Your task to perform on an android device: turn on translation in the chrome app Image 0: 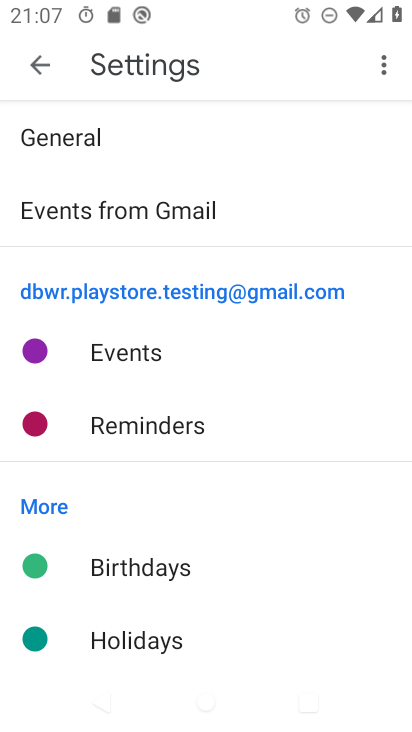
Step 0: press home button
Your task to perform on an android device: turn on translation in the chrome app Image 1: 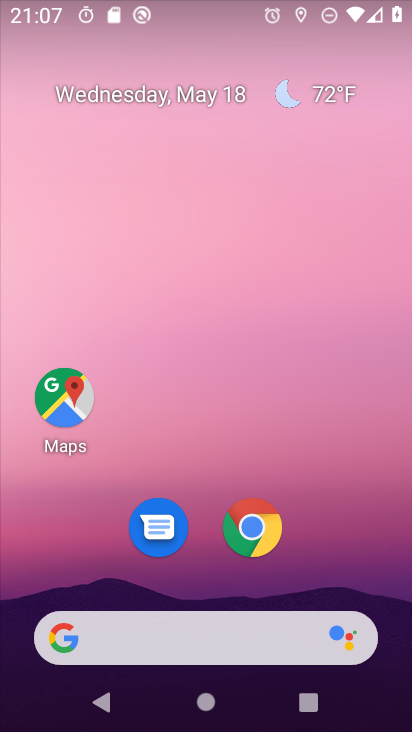
Step 1: drag from (391, 687) to (384, 236)
Your task to perform on an android device: turn on translation in the chrome app Image 2: 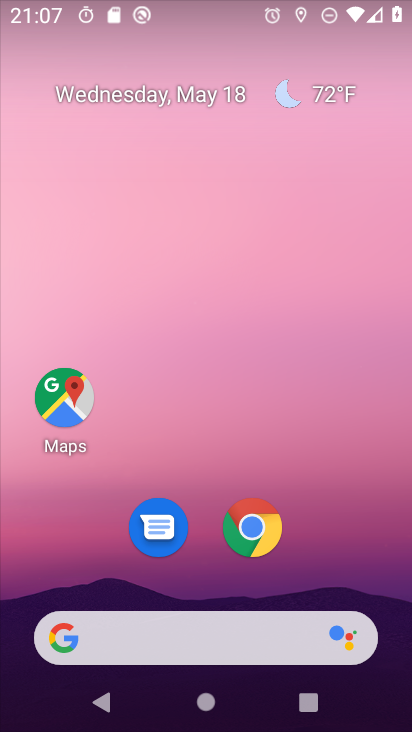
Step 2: drag from (390, 693) to (409, 350)
Your task to perform on an android device: turn on translation in the chrome app Image 3: 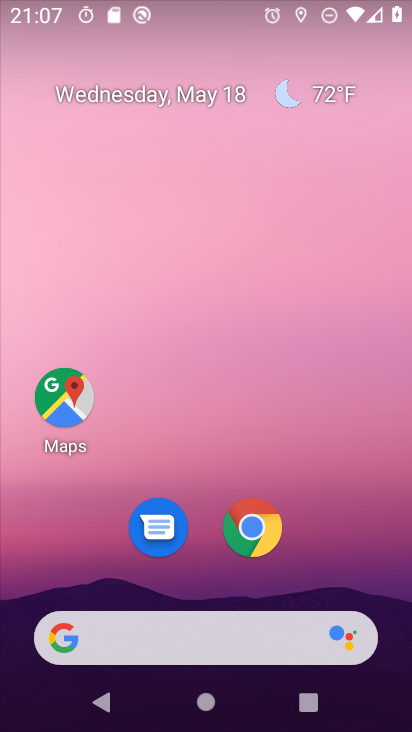
Step 3: drag from (389, 689) to (394, 313)
Your task to perform on an android device: turn on translation in the chrome app Image 4: 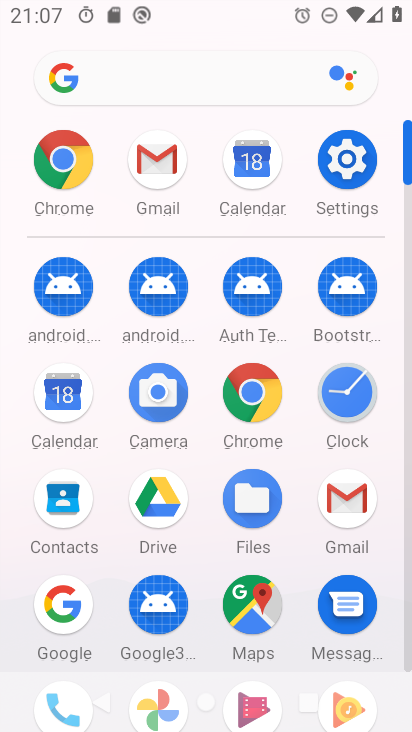
Step 4: click (233, 400)
Your task to perform on an android device: turn on translation in the chrome app Image 5: 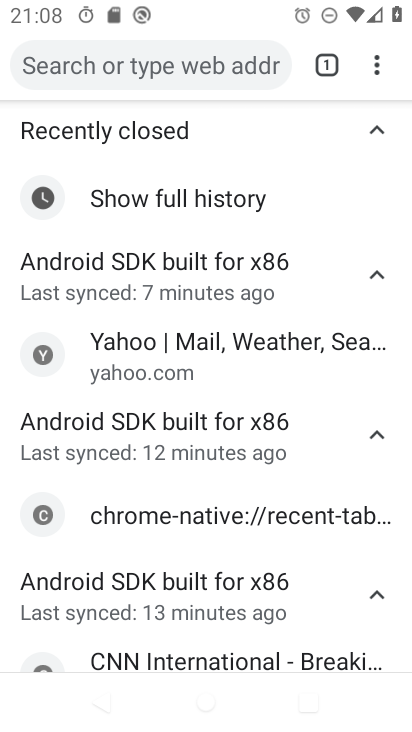
Step 5: click (378, 62)
Your task to perform on an android device: turn on translation in the chrome app Image 6: 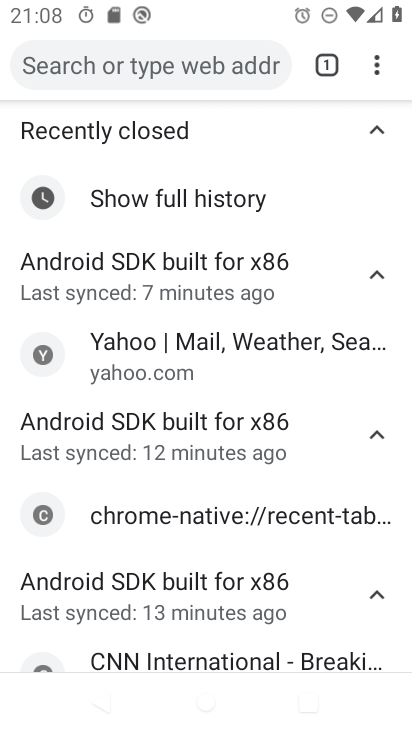
Step 6: click (372, 64)
Your task to perform on an android device: turn on translation in the chrome app Image 7: 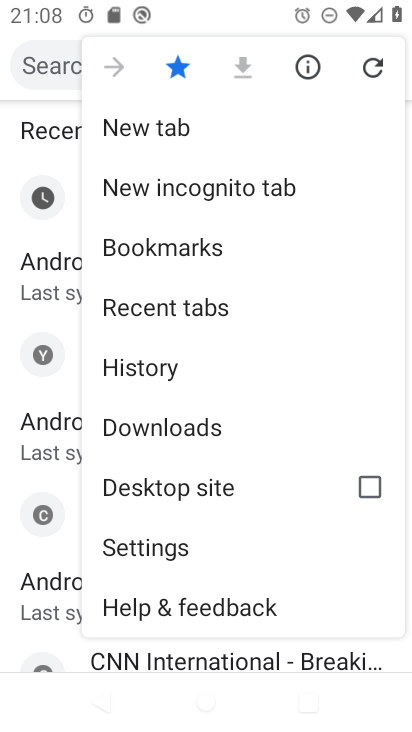
Step 7: drag from (269, 572) to (321, 251)
Your task to perform on an android device: turn on translation in the chrome app Image 8: 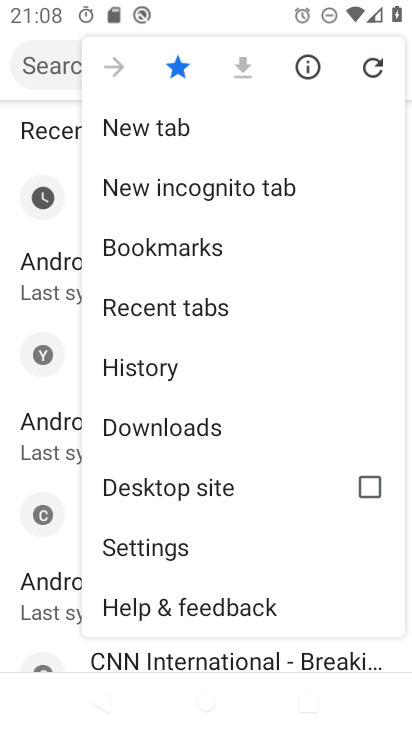
Step 8: drag from (291, 612) to (323, 186)
Your task to perform on an android device: turn on translation in the chrome app Image 9: 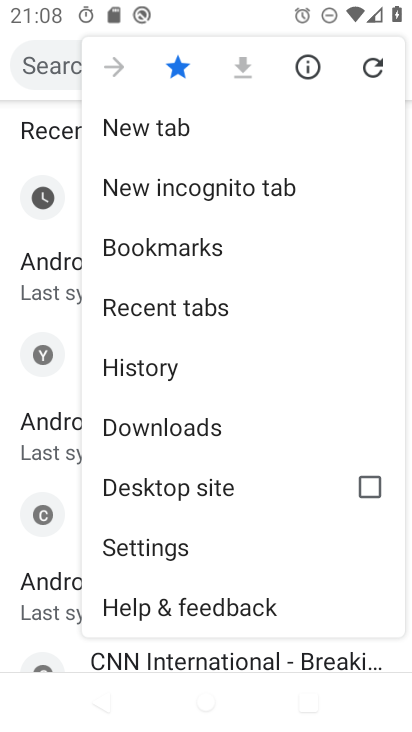
Step 9: drag from (318, 403) to (331, 97)
Your task to perform on an android device: turn on translation in the chrome app Image 10: 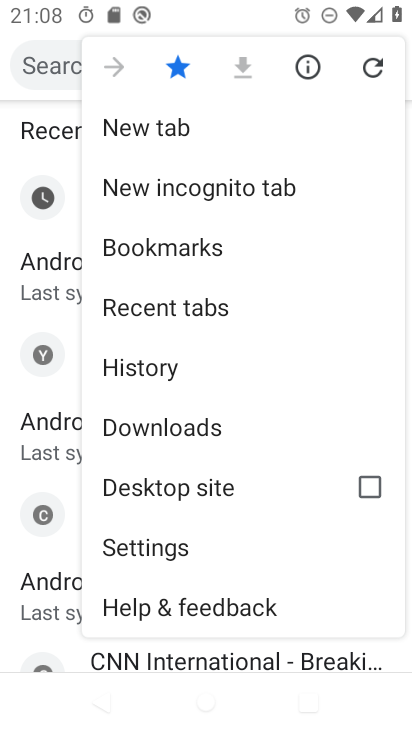
Step 10: click (146, 552)
Your task to perform on an android device: turn on translation in the chrome app Image 11: 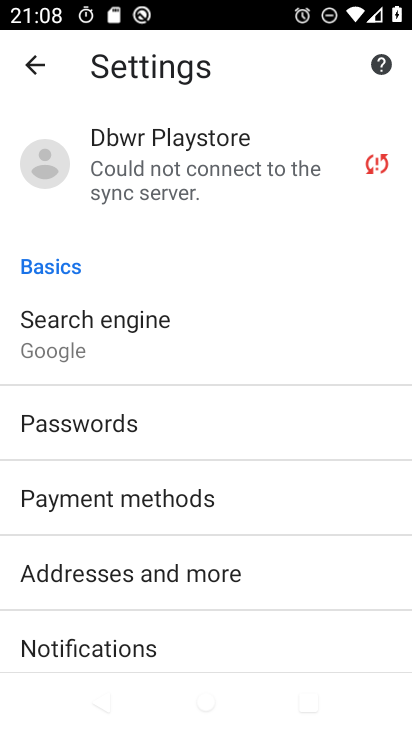
Step 11: drag from (277, 655) to (338, 139)
Your task to perform on an android device: turn on translation in the chrome app Image 12: 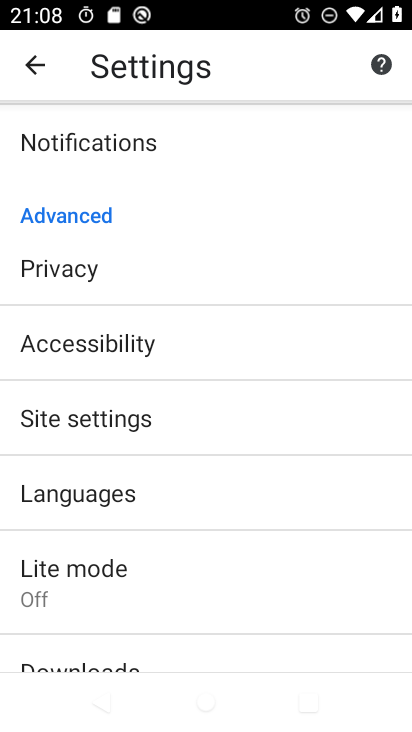
Step 12: click (81, 497)
Your task to perform on an android device: turn on translation in the chrome app Image 13: 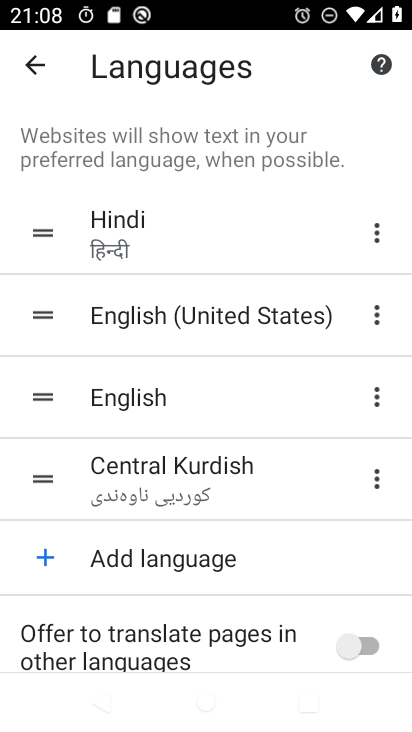
Step 13: click (371, 645)
Your task to perform on an android device: turn on translation in the chrome app Image 14: 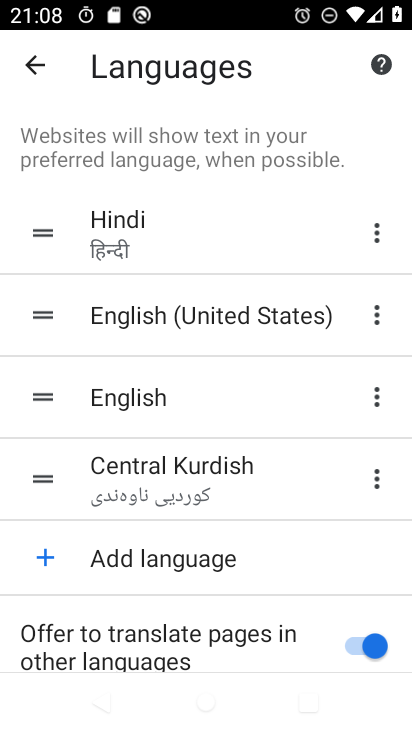
Step 14: task complete